Your task to perform on an android device: Search for the best books on Goodreads. Image 0: 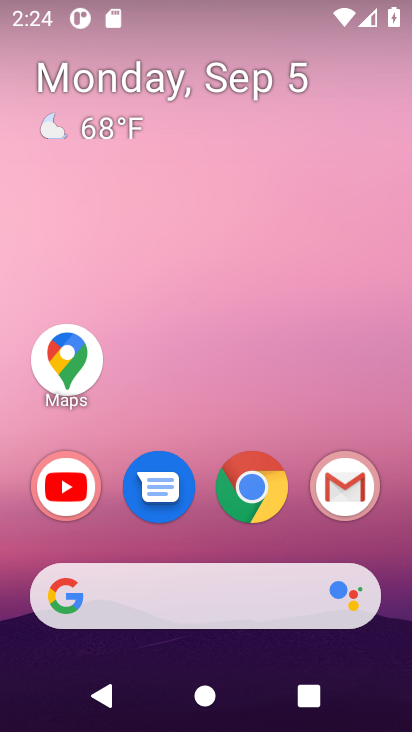
Step 0: click (238, 475)
Your task to perform on an android device: Search for the best books on Goodreads. Image 1: 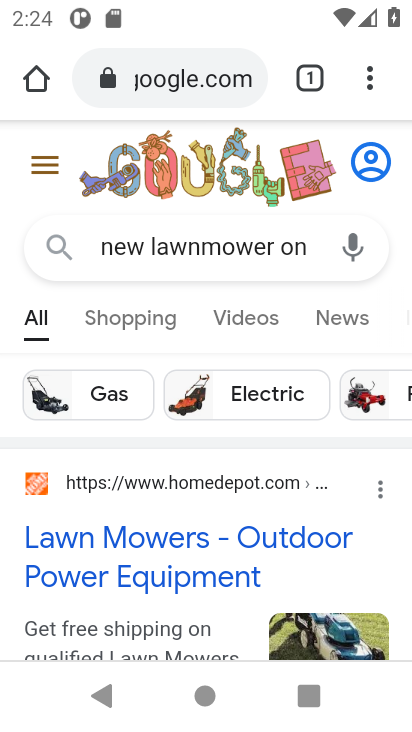
Step 1: click (166, 79)
Your task to perform on an android device: Search for the best books on Goodreads. Image 2: 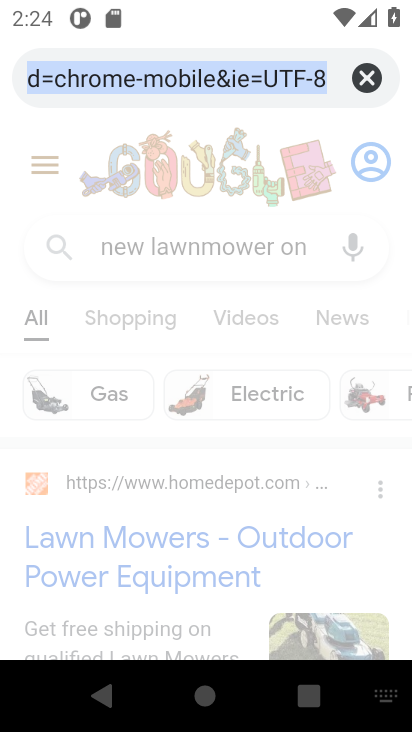
Step 2: click (360, 73)
Your task to perform on an android device: Search for the best books on Goodreads. Image 3: 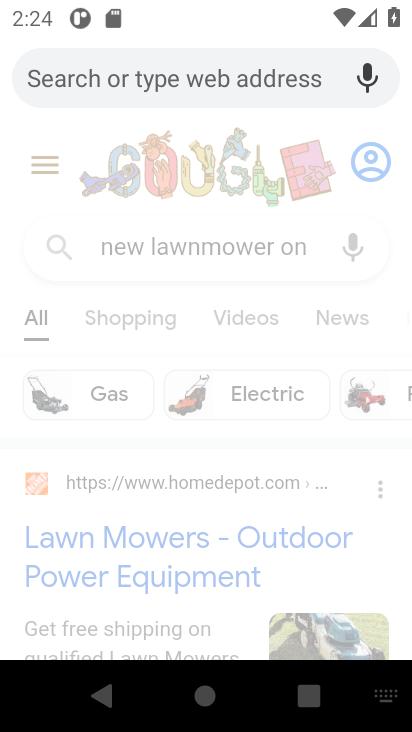
Step 3: type " the best books on Goodreads."
Your task to perform on an android device: Search for the best books on Goodreads. Image 4: 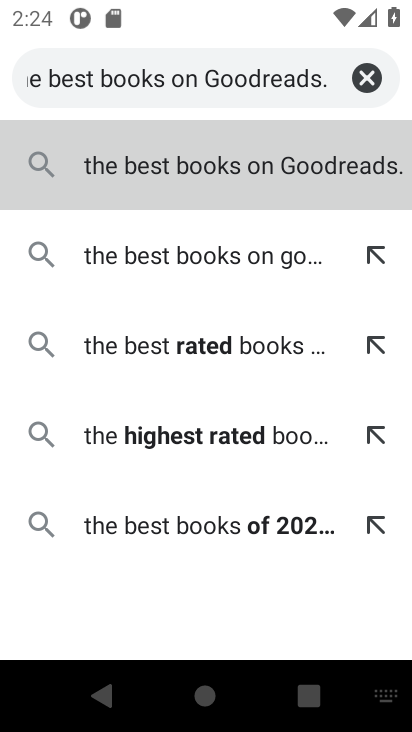
Step 4: click (295, 148)
Your task to perform on an android device: Search for the best books on Goodreads. Image 5: 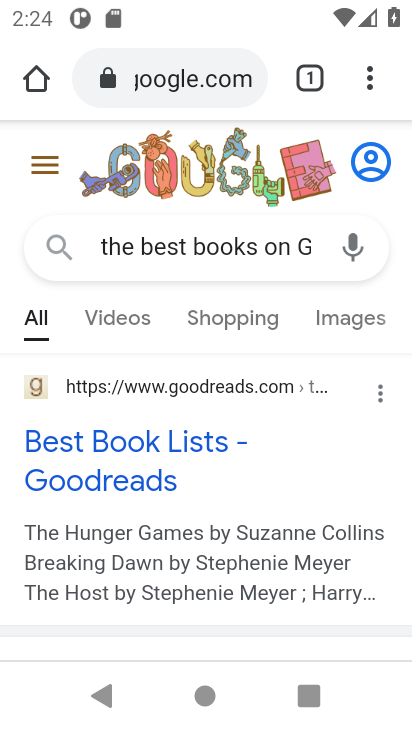
Step 5: task complete